Your task to perform on an android device: Open wifi settings Image 0: 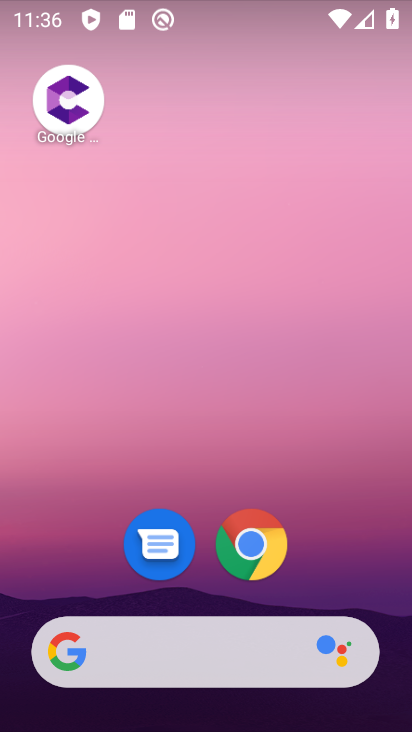
Step 0: drag from (332, 547) to (332, 83)
Your task to perform on an android device: Open wifi settings Image 1: 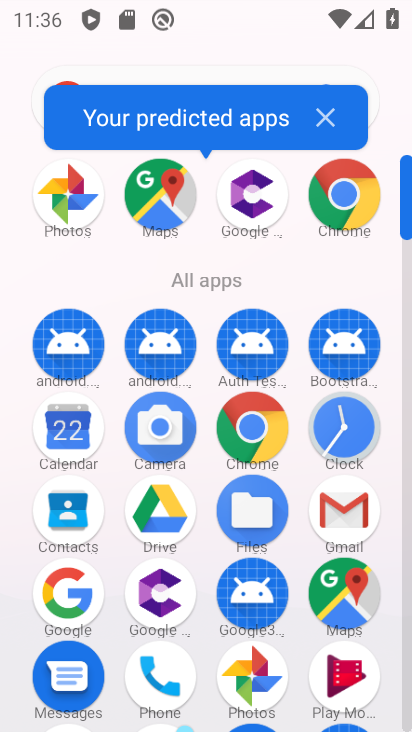
Step 1: drag from (209, 563) to (248, 159)
Your task to perform on an android device: Open wifi settings Image 2: 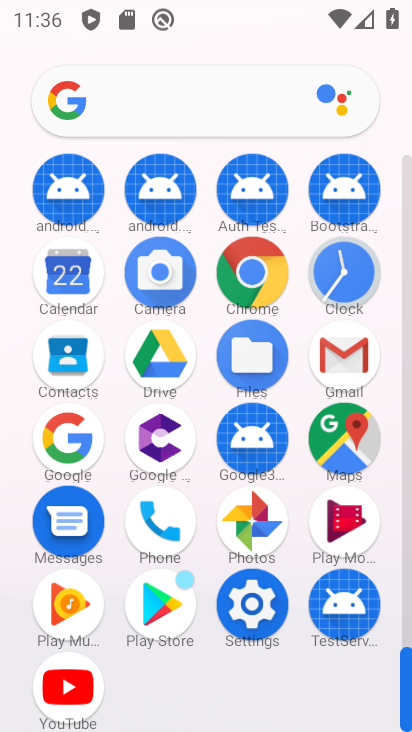
Step 2: click (256, 591)
Your task to perform on an android device: Open wifi settings Image 3: 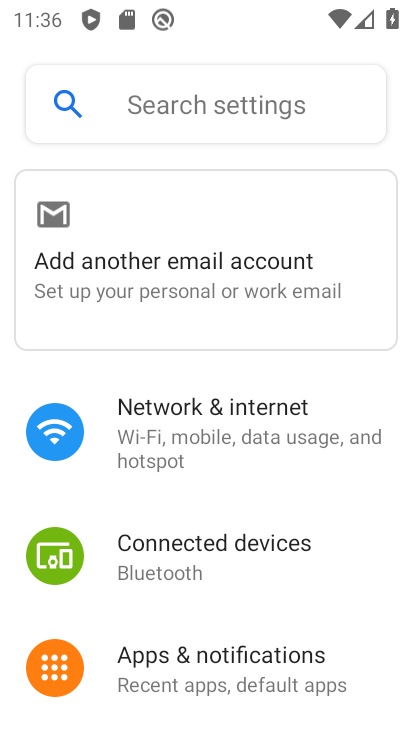
Step 3: click (222, 430)
Your task to perform on an android device: Open wifi settings Image 4: 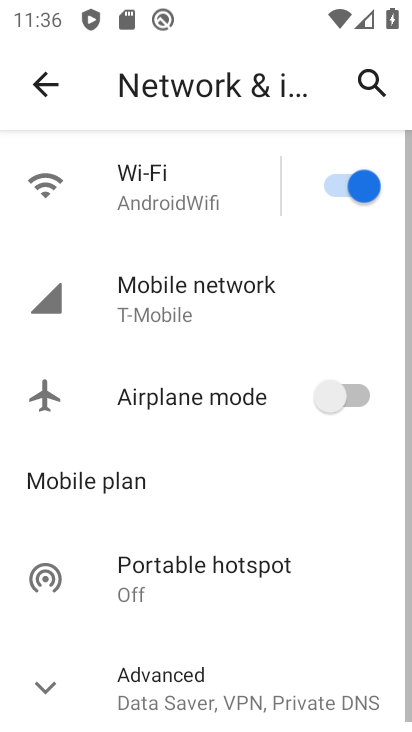
Step 4: click (208, 193)
Your task to perform on an android device: Open wifi settings Image 5: 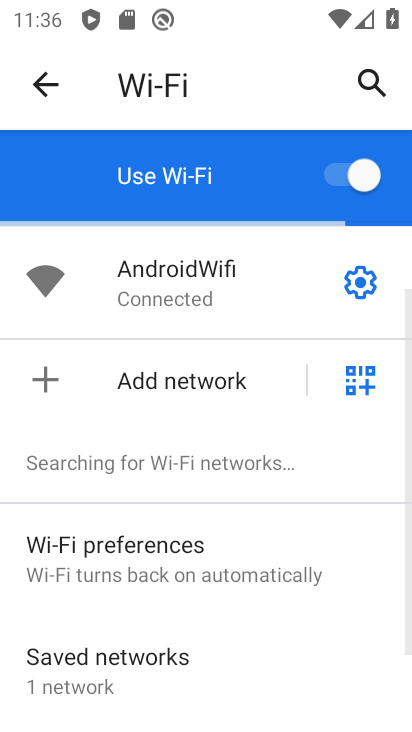
Step 5: click (363, 290)
Your task to perform on an android device: Open wifi settings Image 6: 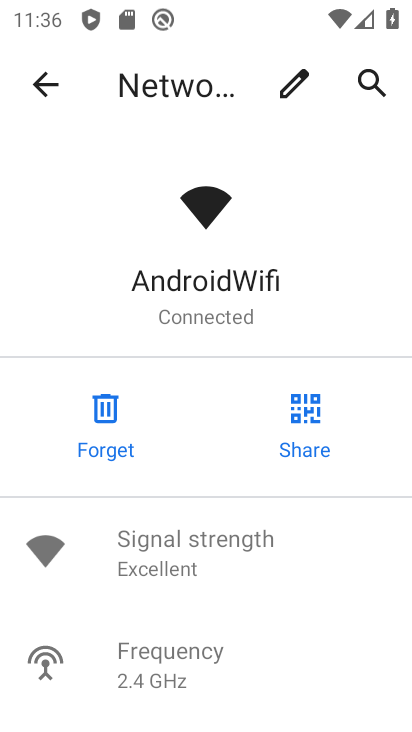
Step 6: task complete